Your task to perform on an android device: toggle notifications settings in the gmail app Image 0: 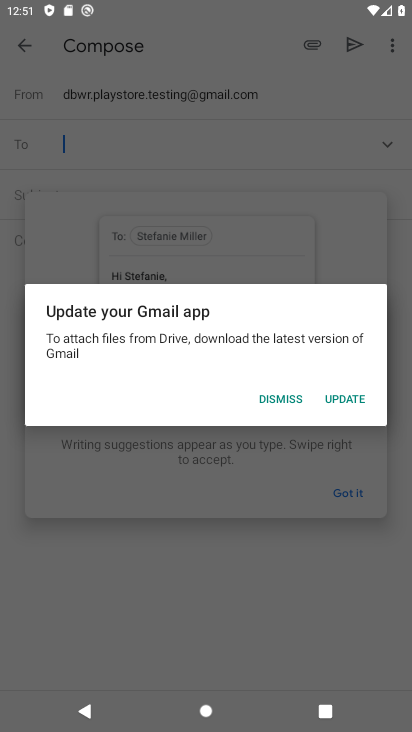
Step 0: press home button
Your task to perform on an android device: toggle notifications settings in the gmail app Image 1: 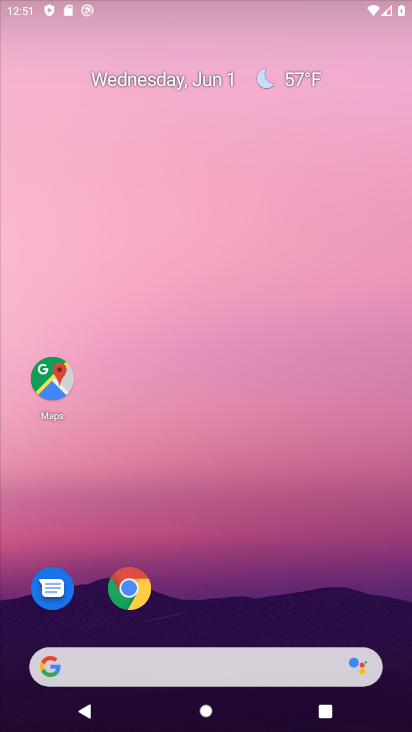
Step 1: drag from (268, 574) to (178, 41)
Your task to perform on an android device: toggle notifications settings in the gmail app Image 2: 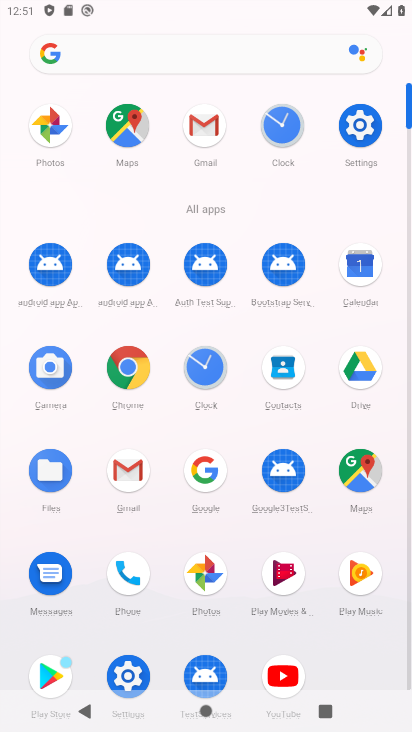
Step 2: click (118, 471)
Your task to perform on an android device: toggle notifications settings in the gmail app Image 3: 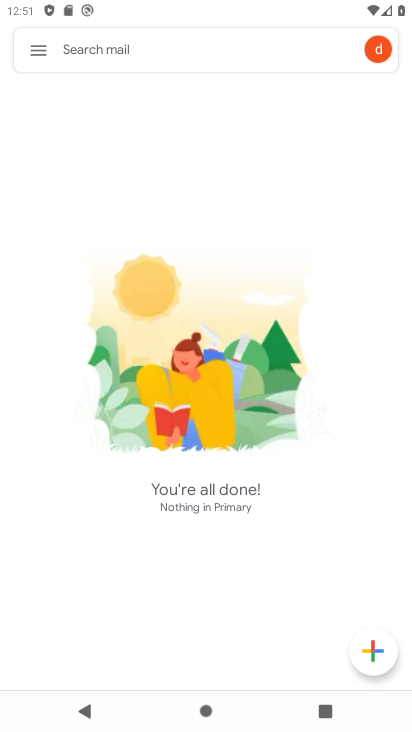
Step 3: click (34, 41)
Your task to perform on an android device: toggle notifications settings in the gmail app Image 4: 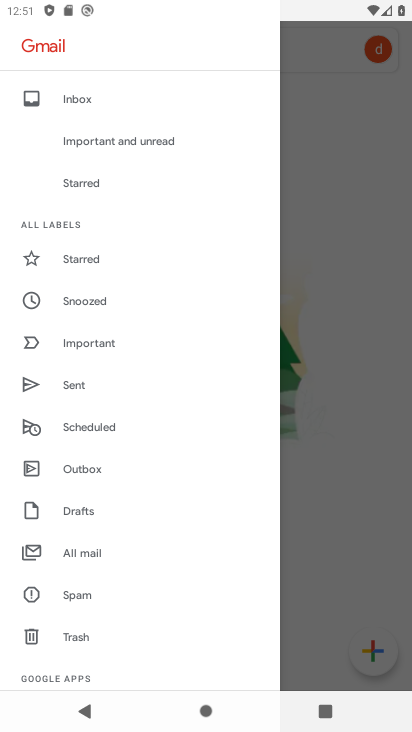
Step 4: drag from (156, 540) to (192, 230)
Your task to perform on an android device: toggle notifications settings in the gmail app Image 5: 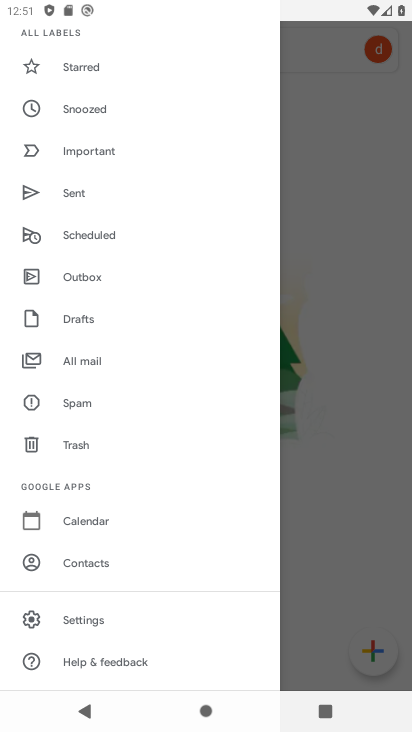
Step 5: click (107, 622)
Your task to perform on an android device: toggle notifications settings in the gmail app Image 6: 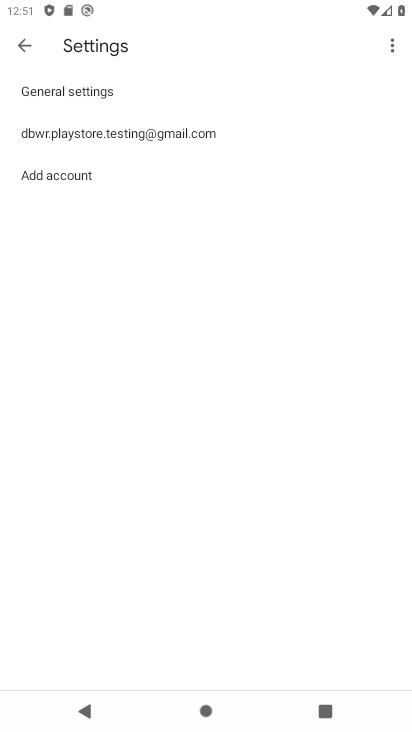
Step 6: click (136, 137)
Your task to perform on an android device: toggle notifications settings in the gmail app Image 7: 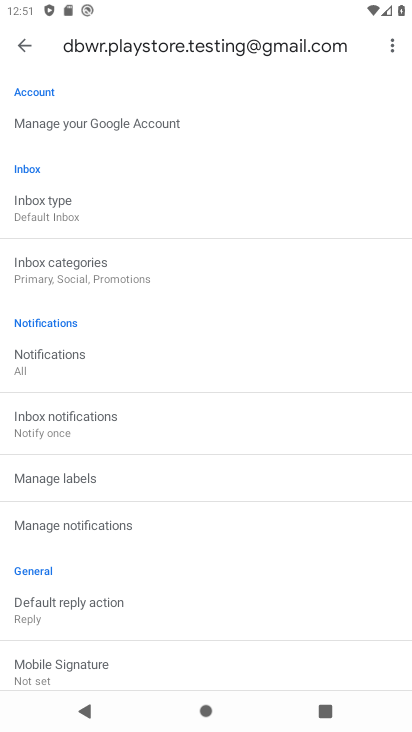
Step 7: click (113, 365)
Your task to perform on an android device: toggle notifications settings in the gmail app Image 8: 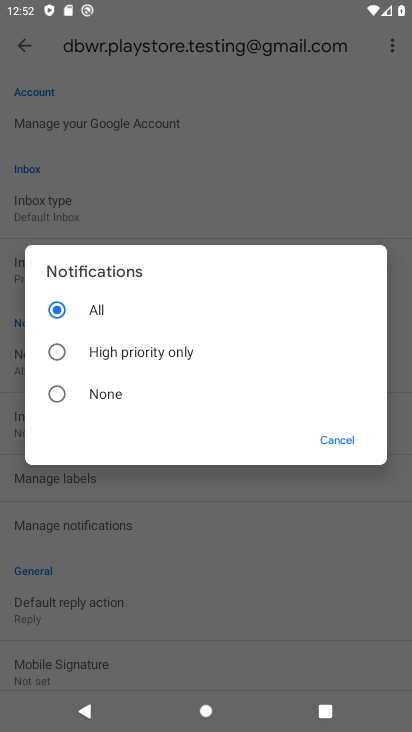
Step 8: click (110, 389)
Your task to perform on an android device: toggle notifications settings in the gmail app Image 9: 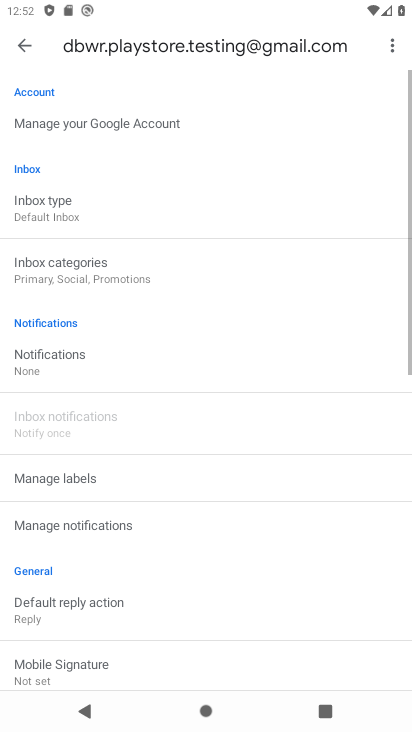
Step 9: task complete